Your task to perform on an android device: Go to wifi settings Image 0: 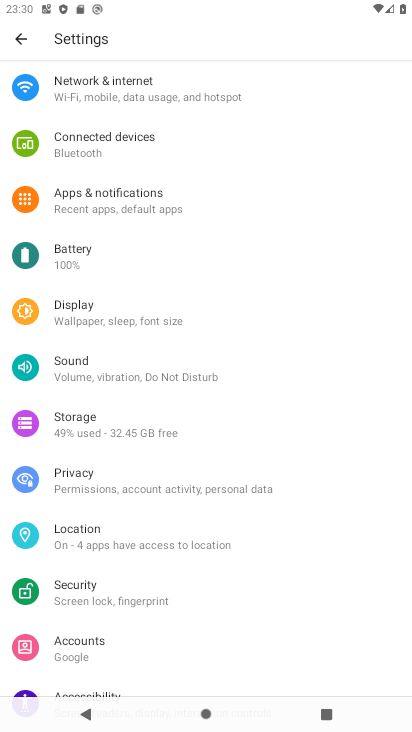
Step 0: press home button
Your task to perform on an android device: Go to wifi settings Image 1: 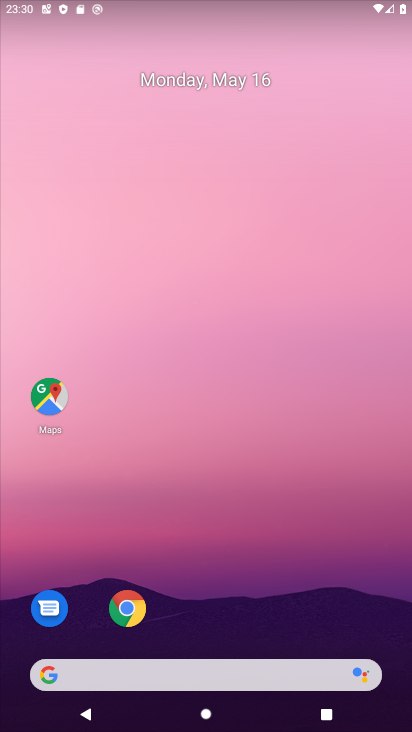
Step 1: drag from (189, 662) to (302, 38)
Your task to perform on an android device: Go to wifi settings Image 2: 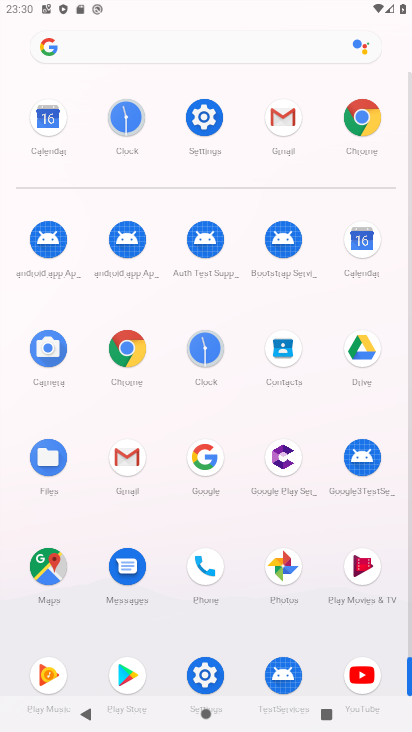
Step 2: click (198, 123)
Your task to perform on an android device: Go to wifi settings Image 3: 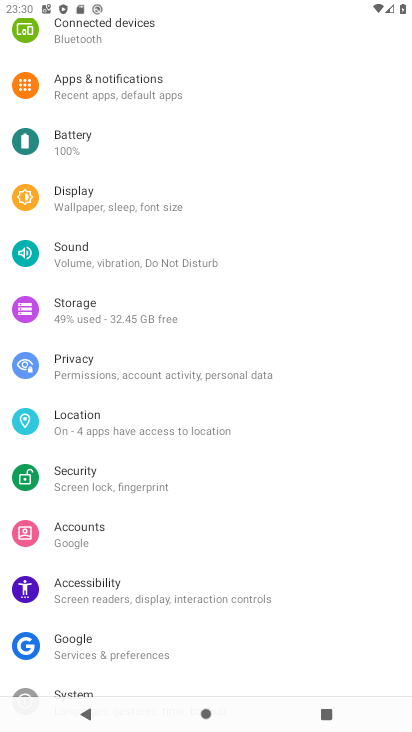
Step 3: drag from (282, 70) to (181, 724)
Your task to perform on an android device: Go to wifi settings Image 4: 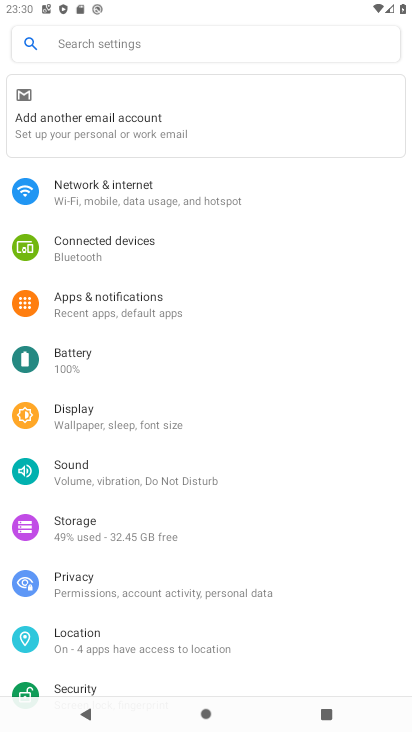
Step 4: click (157, 188)
Your task to perform on an android device: Go to wifi settings Image 5: 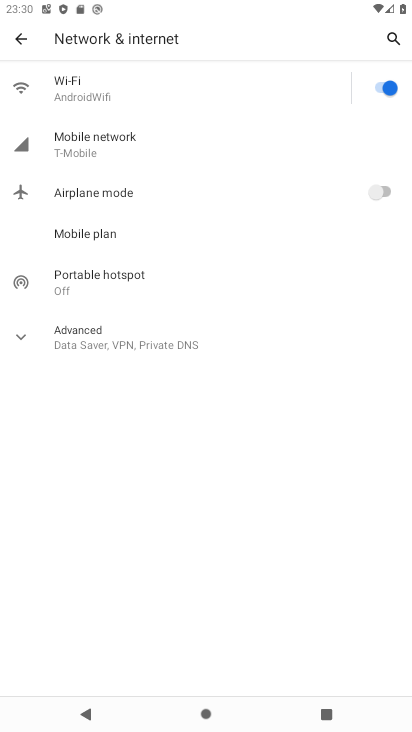
Step 5: click (96, 94)
Your task to perform on an android device: Go to wifi settings Image 6: 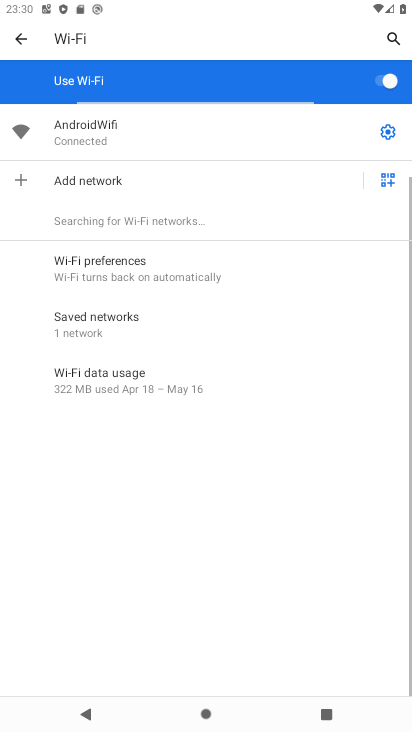
Step 6: task complete